Your task to perform on an android device: toggle data saver in the chrome app Image 0: 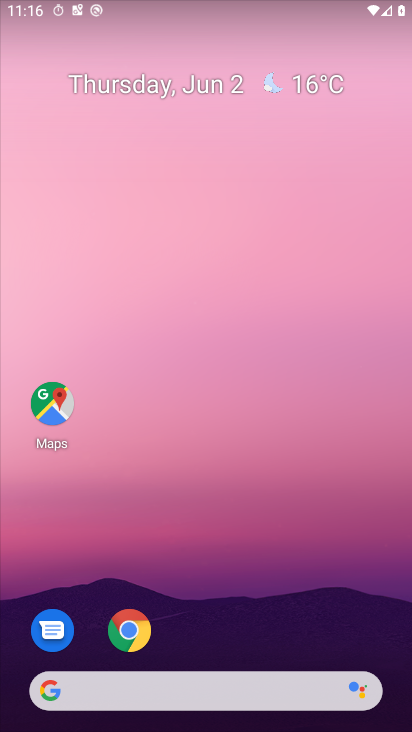
Step 0: click (138, 633)
Your task to perform on an android device: toggle data saver in the chrome app Image 1: 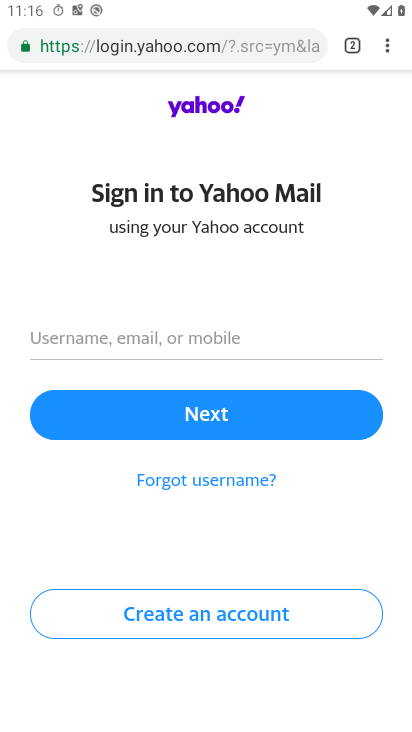
Step 1: click (379, 45)
Your task to perform on an android device: toggle data saver in the chrome app Image 2: 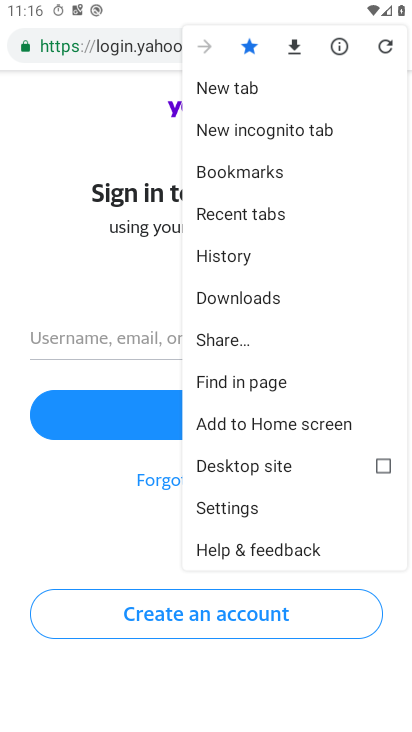
Step 2: click (243, 501)
Your task to perform on an android device: toggle data saver in the chrome app Image 3: 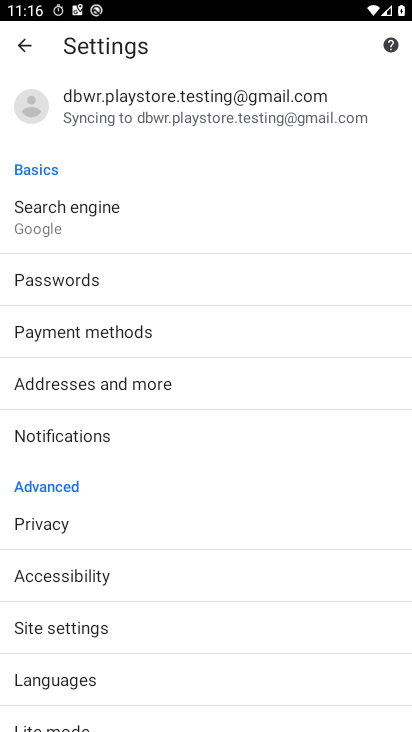
Step 3: drag from (96, 658) to (108, 525)
Your task to perform on an android device: toggle data saver in the chrome app Image 4: 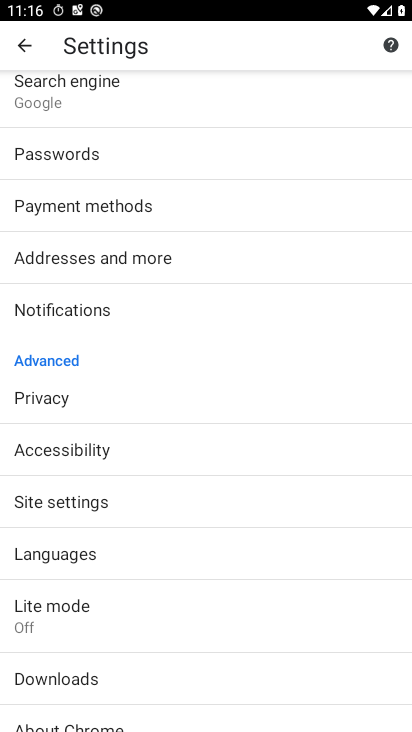
Step 4: click (77, 622)
Your task to perform on an android device: toggle data saver in the chrome app Image 5: 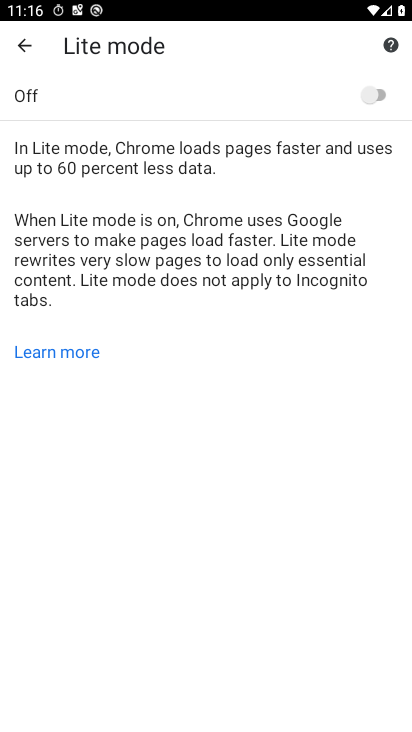
Step 5: click (384, 94)
Your task to perform on an android device: toggle data saver in the chrome app Image 6: 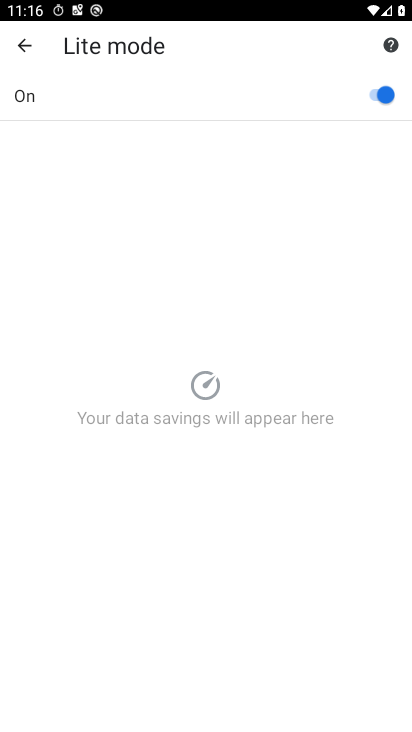
Step 6: task complete